Your task to perform on an android device: toggle airplane mode Image 0: 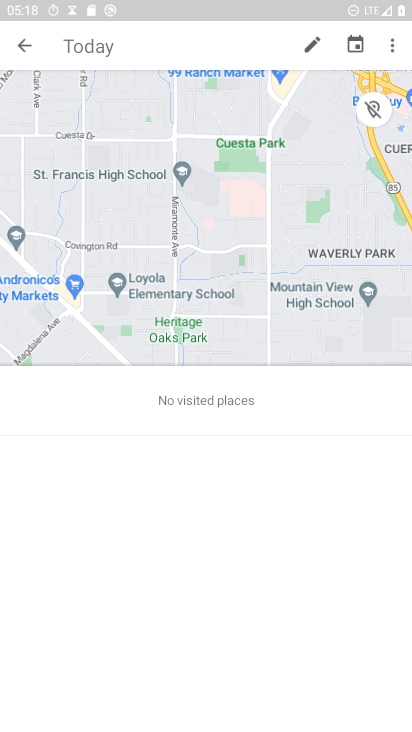
Step 0: press home button
Your task to perform on an android device: toggle airplane mode Image 1: 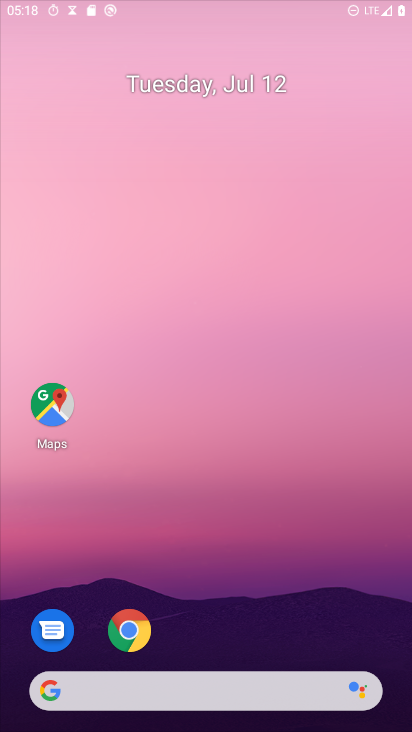
Step 1: drag from (170, 707) to (228, 25)
Your task to perform on an android device: toggle airplane mode Image 2: 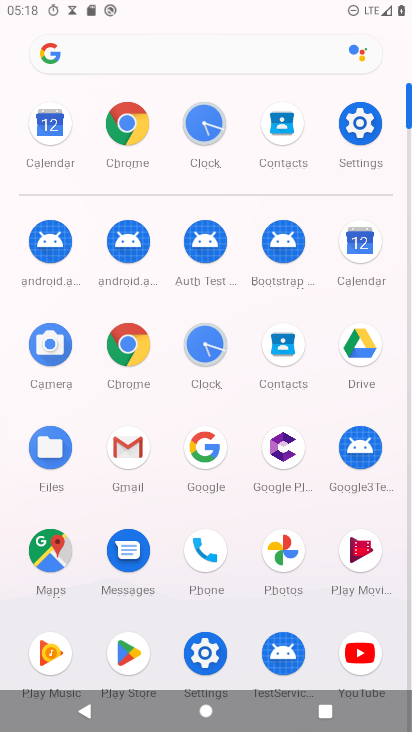
Step 2: click (350, 117)
Your task to perform on an android device: toggle airplane mode Image 3: 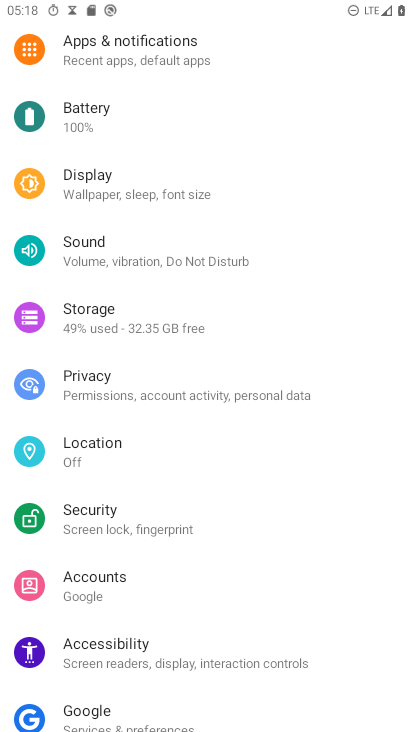
Step 3: drag from (145, 166) to (202, 668)
Your task to perform on an android device: toggle airplane mode Image 4: 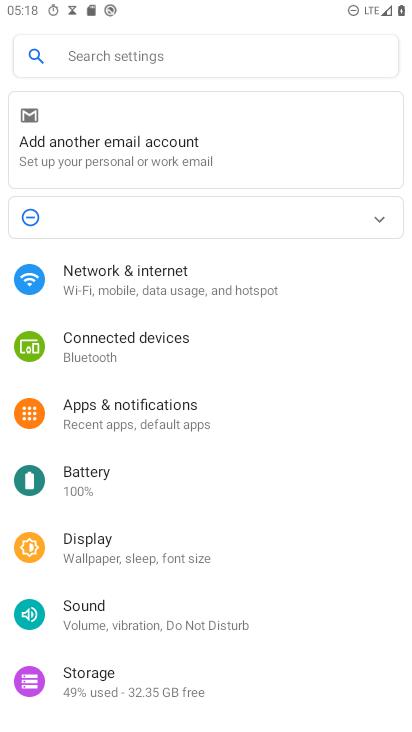
Step 4: click (193, 276)
Your task to perform on an android device: toggle airplane mode Image 5: 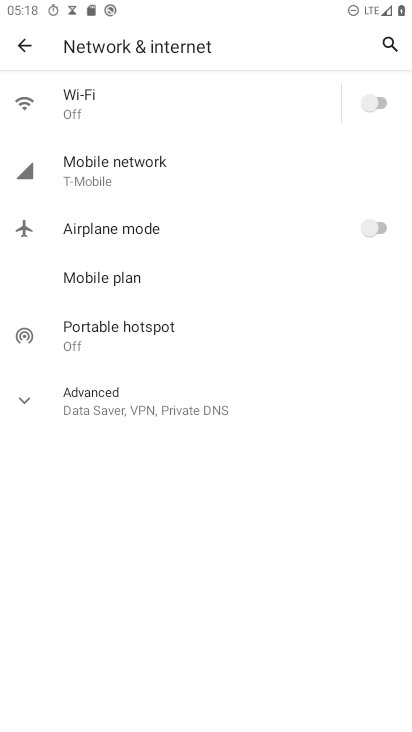
Step 5: click (376, 227)
Your task to perform on an android device: toggle airplane mode Image 6: 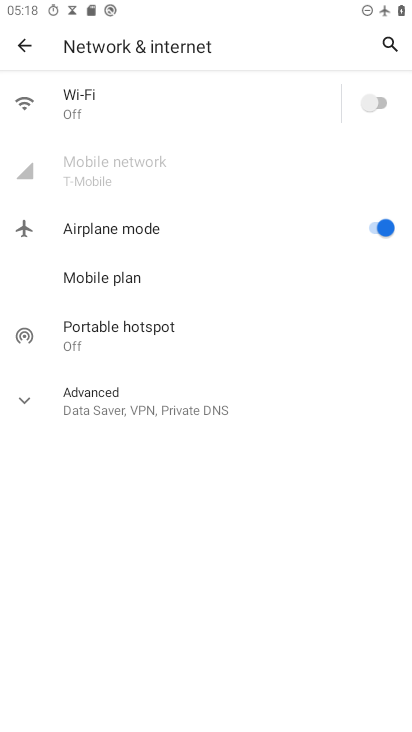
Step 6: task complete